Your task to perform on an android device: See recent photos Image 0: 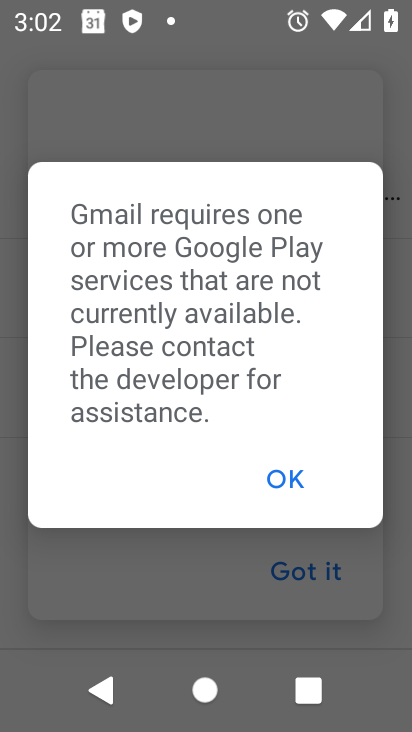
Step 0: press home button
Your task to perform on an android device: See recent photos Image 1: 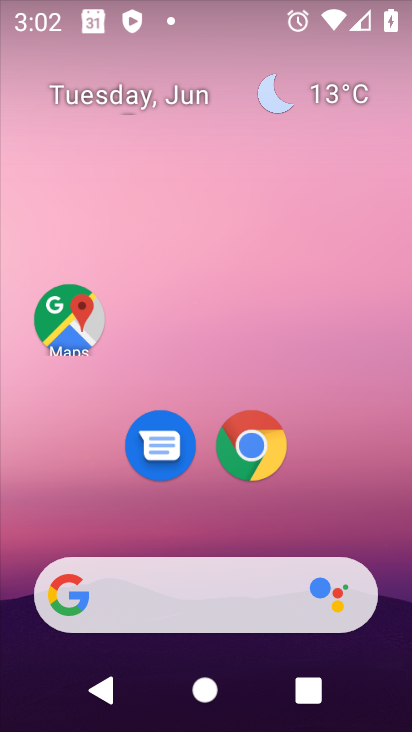
Step 1: drag from (399, 606) to (315, 198)
Your task to perform on an android device: See recent photos Image 2: 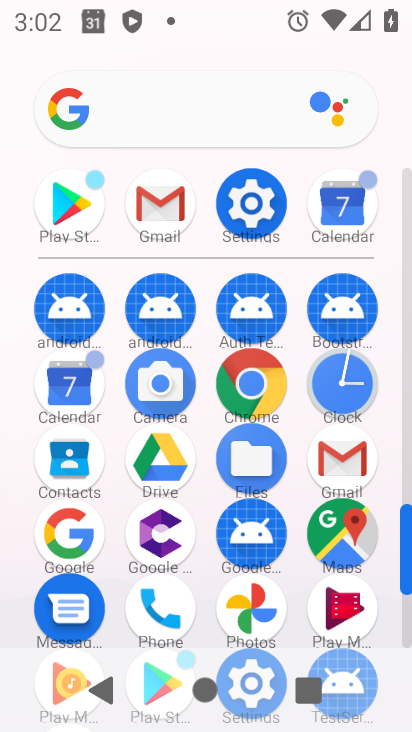
Step 2: click (405, 620)
Your task to perform on an android device: See recent photos Image 3: 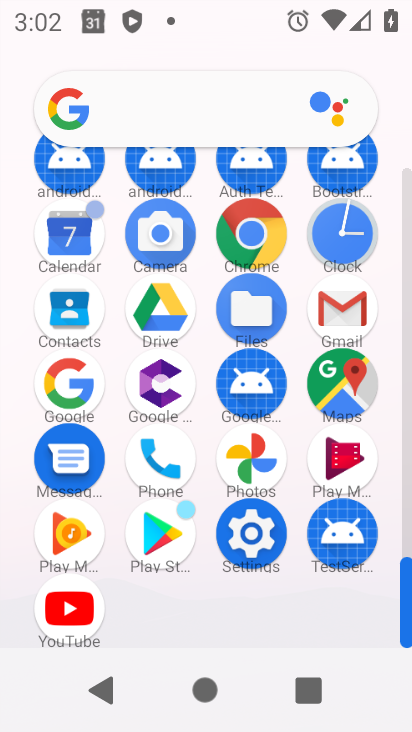
Step 3: click (252, 454)
Your task to perform on an android device: See recent photos Image 4: 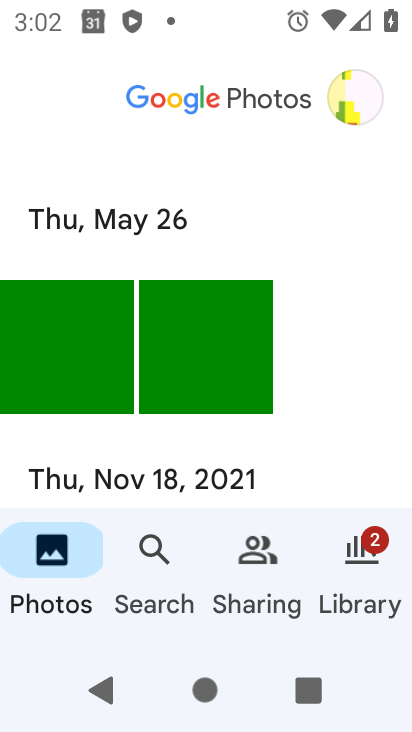
Step 4: task complete